Your task to perform on an android device: turn on sleep mode Image 0: 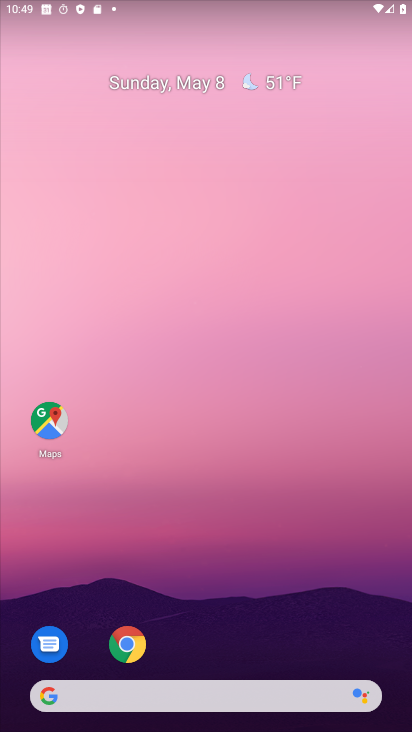
Step 0: drag from (178, 660) to (283, 115)
Your task to perform on an android device: turn on sleep mode Image 1: 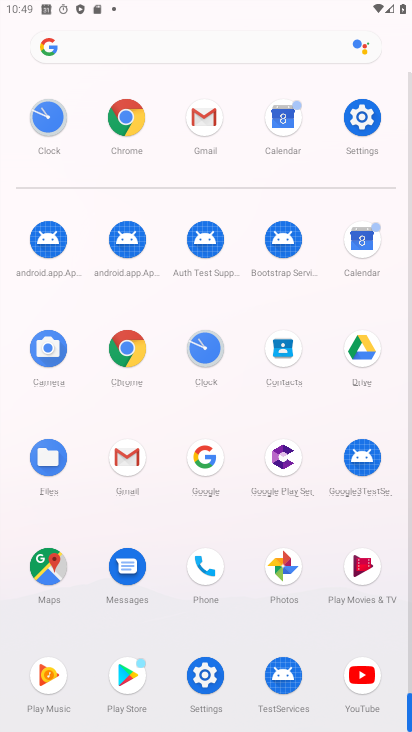
Step 1: click (204, 673)
Your task to perform on an android device: turn on sleep mode Image 2: 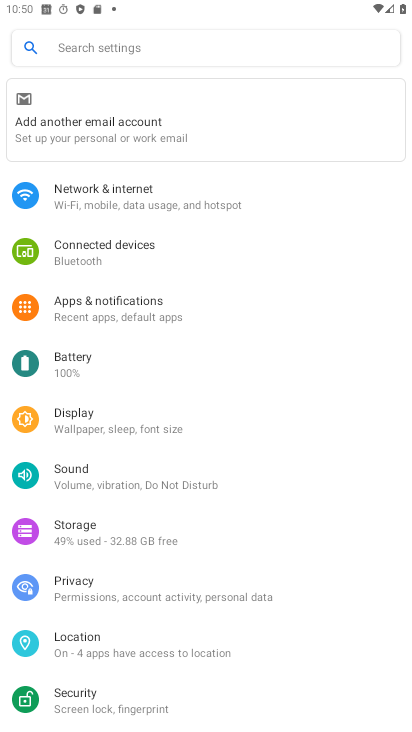
Step 2: drag from (211, 651) to (274, 311)
Your task to perform on an android device: turn on sleep mode Image 3: 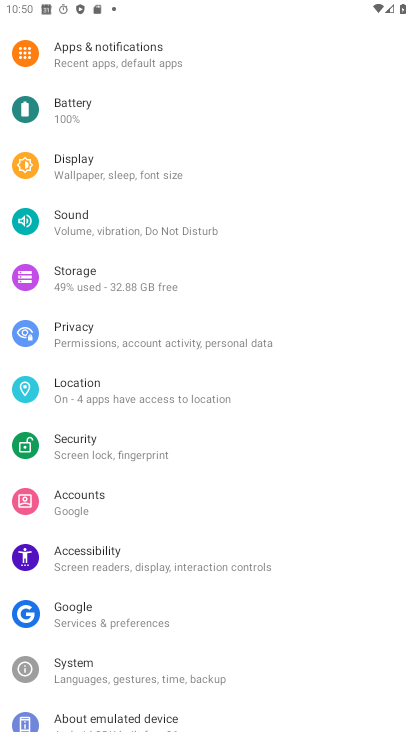
Step 3: click (125, 163)
Your task to perform on an android device: turn on sleep mode Image 4: 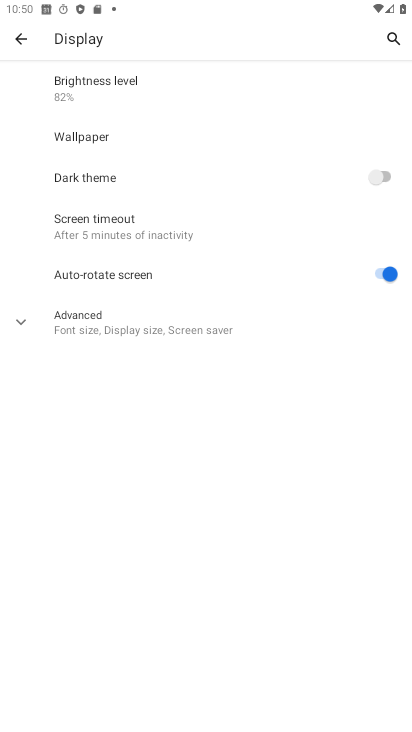
Step 4: click (146, 226)
Your task to perform on an android device: turn on sleep mode Image 5: 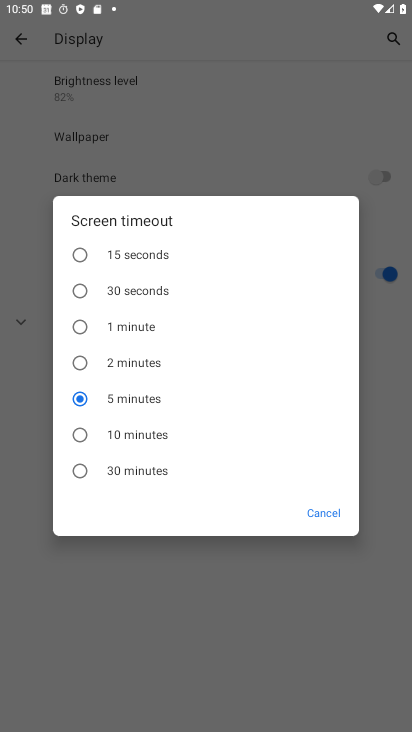
Step 5: task complete